Your task to perform on an android device: toggle notification dots Image 0: 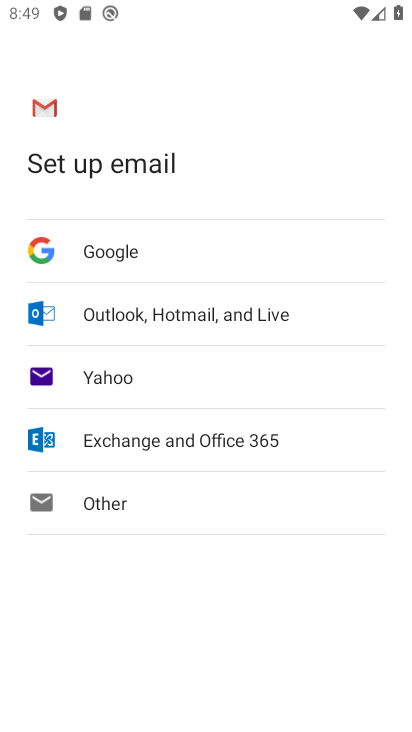
Step 0: press home button
Your task to perform on an android device: toggle notification dots Image 1: 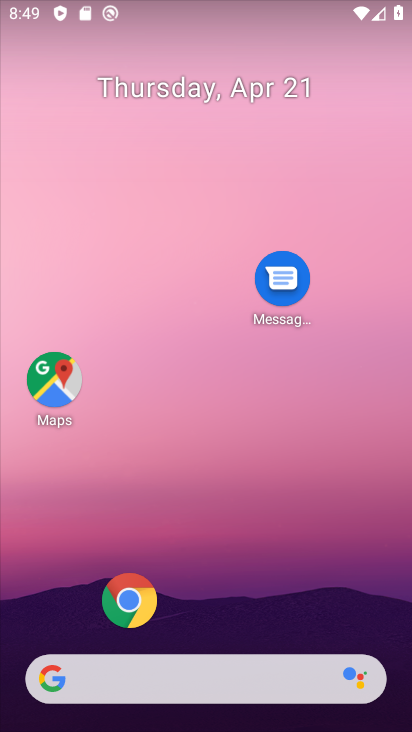
Step 1: drag from (148, 444) to (231, 238)
Your task to perform on an android device: toggle notification dots Image 2: 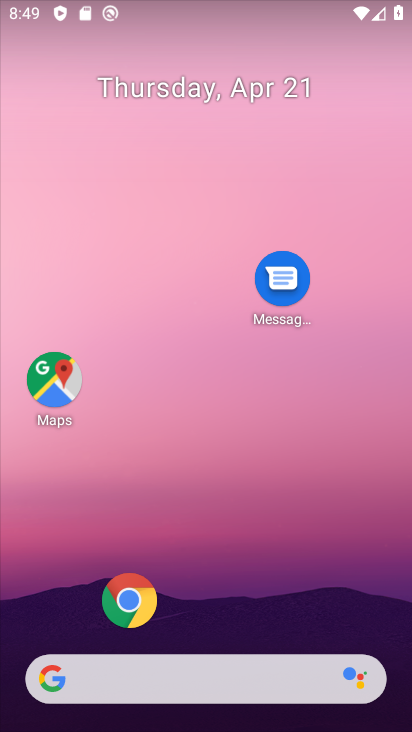
Step 2: drag from (61, 480) to (200, 174)
Your task to perform on an android device: toggle notification dots Image 3: 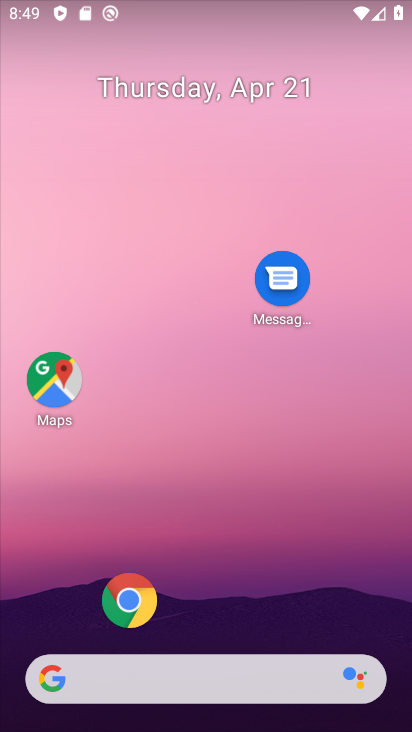
Step 3: drag from (37, 504) to (220, 150)
Your task to perform on an android device: toggle notification dots Image 4: 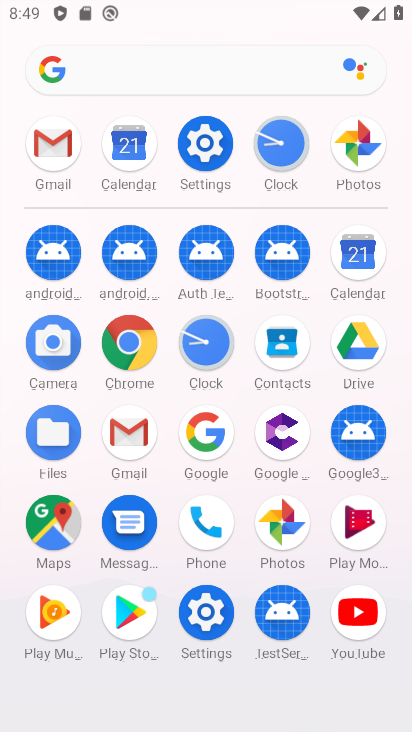
Step 4: click (201, 140)
Your task to perform on an android device: toggle notification dots Image 5: 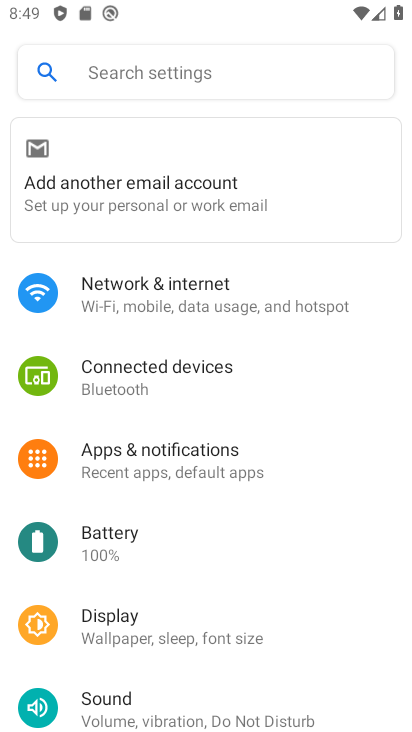
Step 5: click (224, 473)
Your task to perform on an android device: toggle notification dots Image 6: 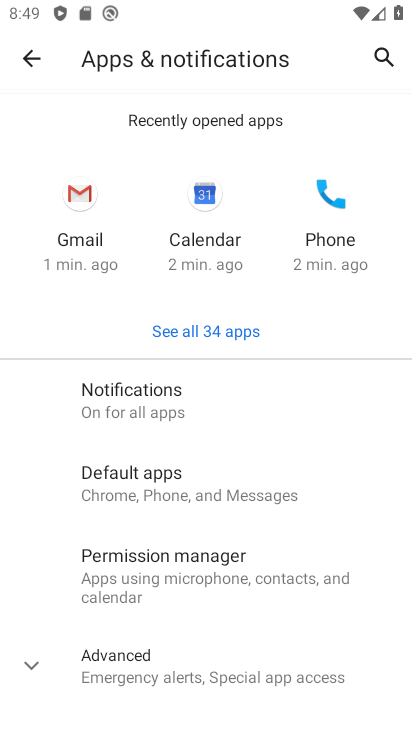
Step 6: click (287, 402)
Your task to perform on an android device: toggle notification dots Image 7: 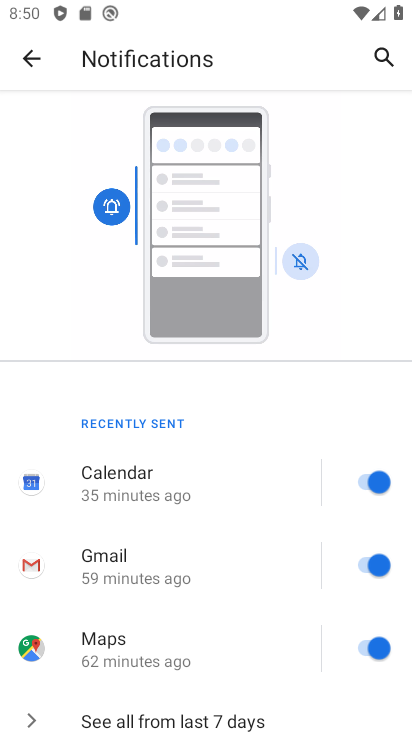
Step 7: drag from (51, 645) to (284, 254)
Your task to perform on an android device: toggle notification dots Image 8: 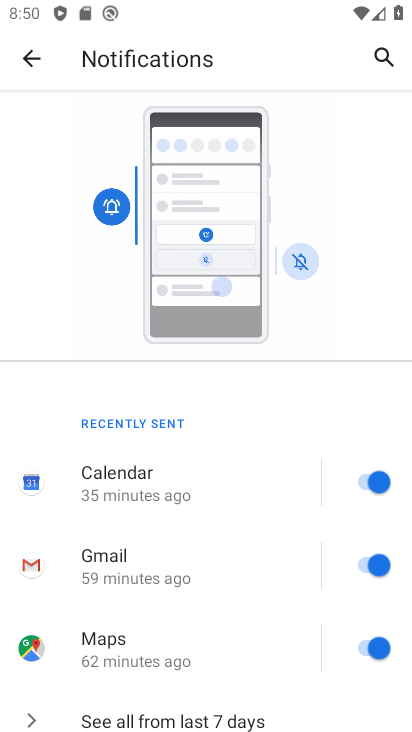
Step 8: drag from (56, 621) to (402, 179)
Your task to perform on an android device: toggle notification dots Image 9: 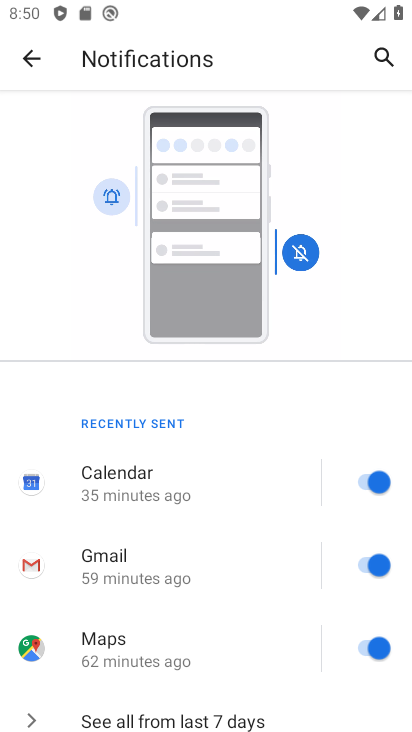
Step 9: drag from (153, 687) to (395, 268)
Your task to perform on an android device: toggle notification dots Image 10: 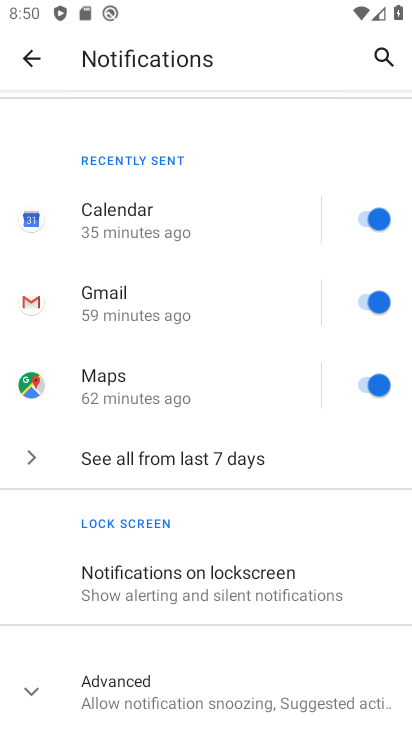
Step 10: drag from (132, 680) to (383, 252)
Your task to perform on an android device: toggle notification dots Image 11: 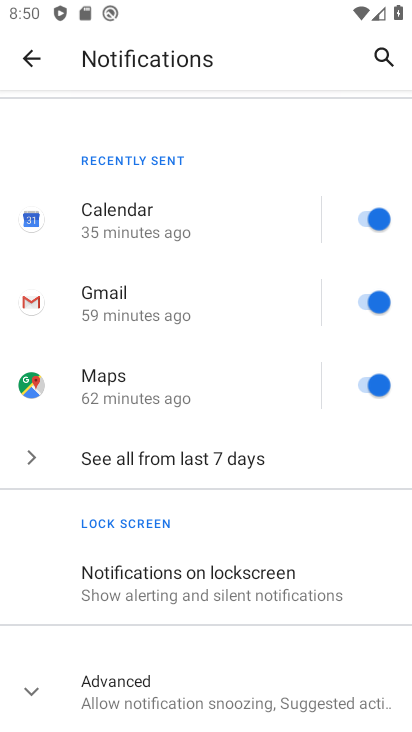
Step 11: click (261, 698)
Your task to perform on an android device: toggle notification dots Image 12: 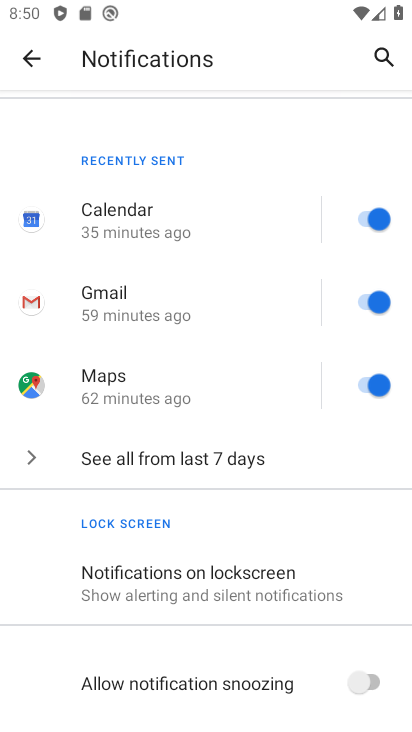
Step 12: drag from (109, 678) to (339, 276)
Your task to perform on an android device: toggle notification dots Image 13: 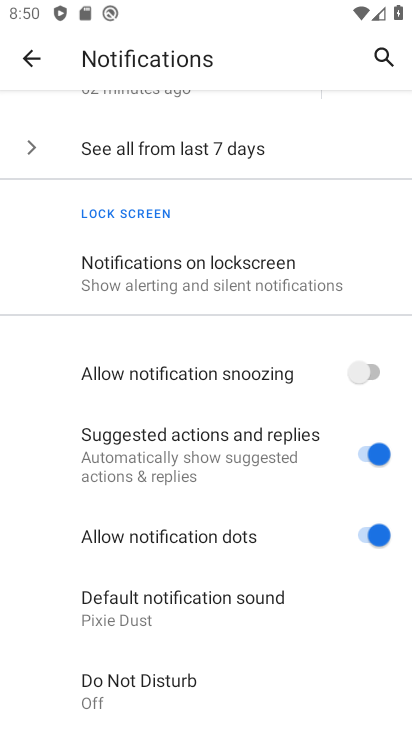
Step 13: click (378, 530)
Your task to perform on an android device: toggle notification dots Image 14: 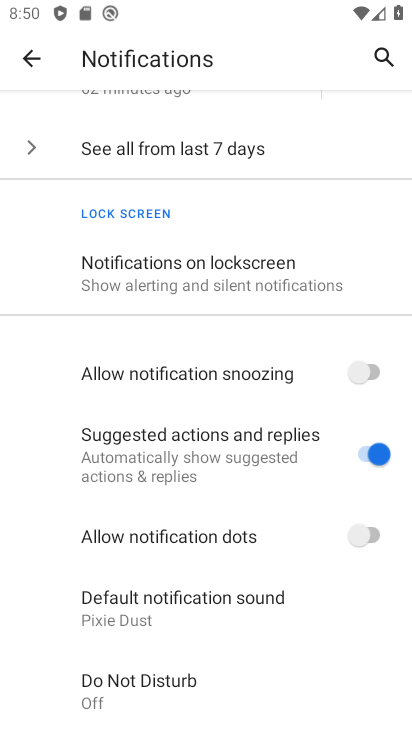
Step 14: task complete